Your task to perform on an android device: Set the phone to "Do not disturb". Image 0: 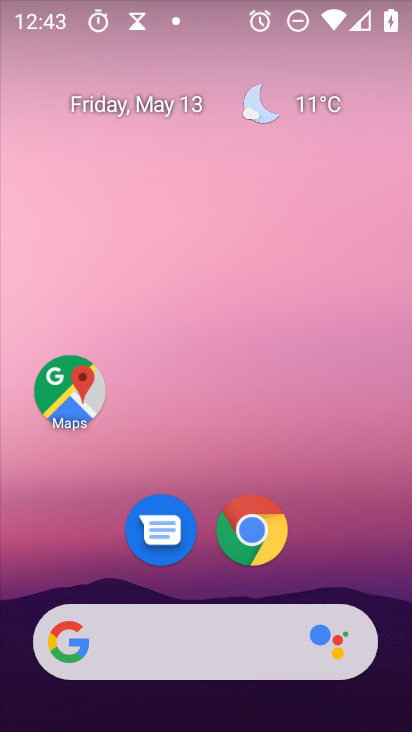
Step 0: drag from (191, 628) to (206, 67)
Your task to perform on an android device: Set the phone to "Do not disturb". Image 1: 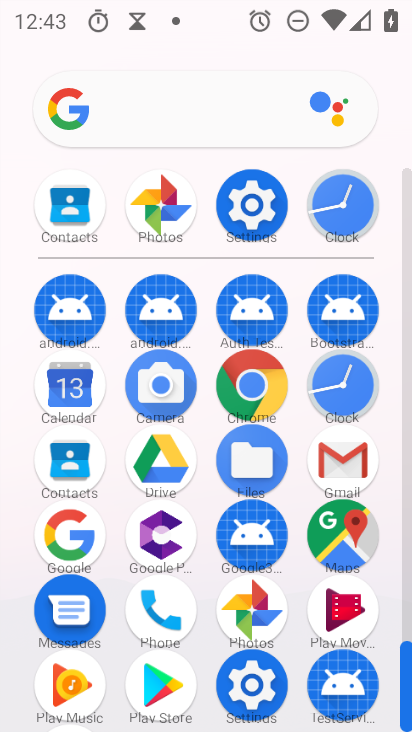
Step 1: click (265, 209)
Your task to perform on an android device: Set the phone to "Do not disturb". Image 2: 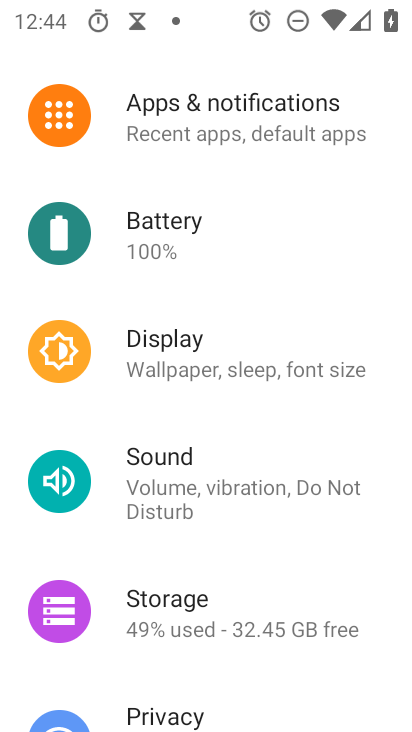
Step 2: click (188, 480)
Your task to perform on an android device: Set the phone to "Do not disturb". Image 3: 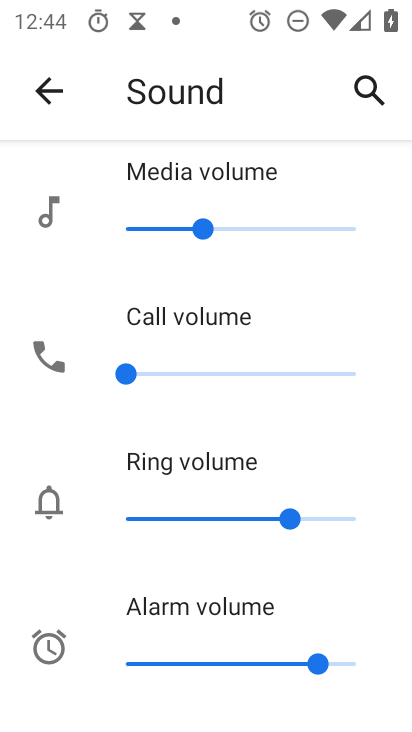
Step 3: drag from (169, 645) to (299, 153)
Your task to perform on an android device: Set the phone to "Do not disturb". Image 4: 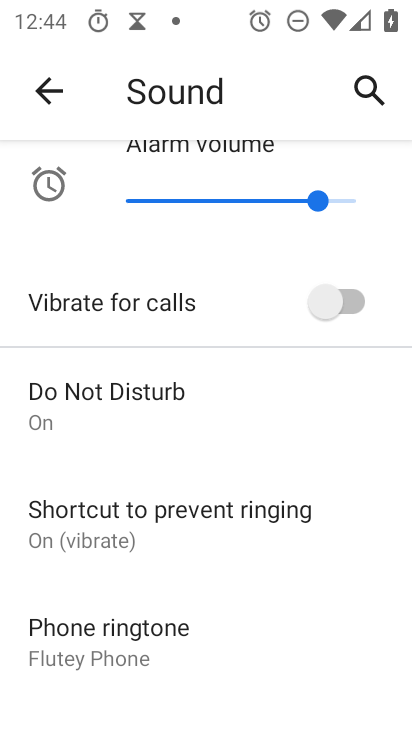
Step 4: click (129, 397)
Your task to perform on an android device: Set the phone to "Do not disturb". Image 5: 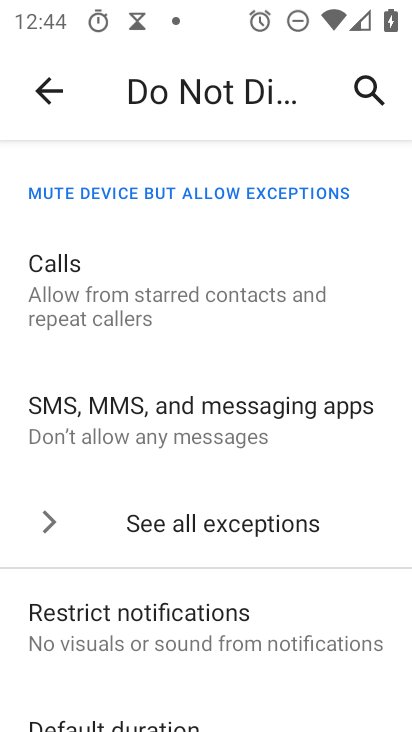
Step 5: task complete